Your task to perform on an android device: Go to eBay Image 0: 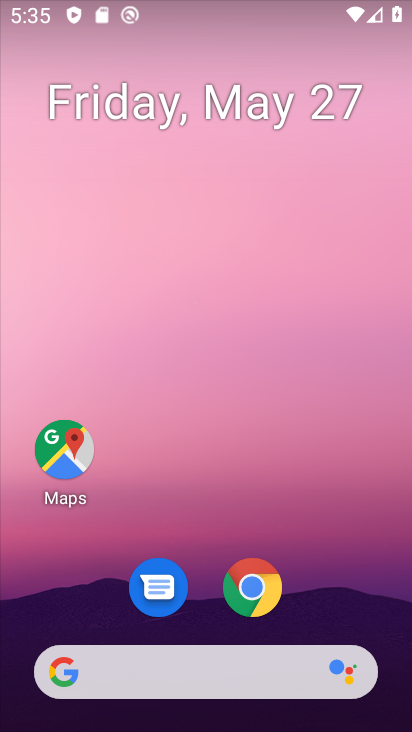
Step 0: click (269, 591)
Your task to perform on an android device: Go to eBay Image 1: 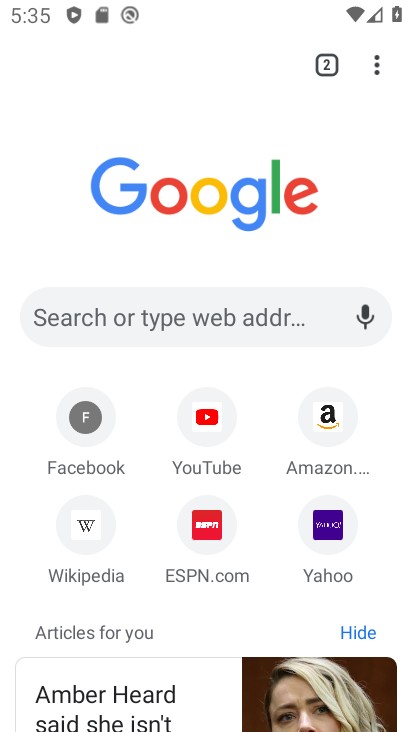
Step 1: click (211, 312)
Your task to perform on an android device: Go to eBay Image 2: 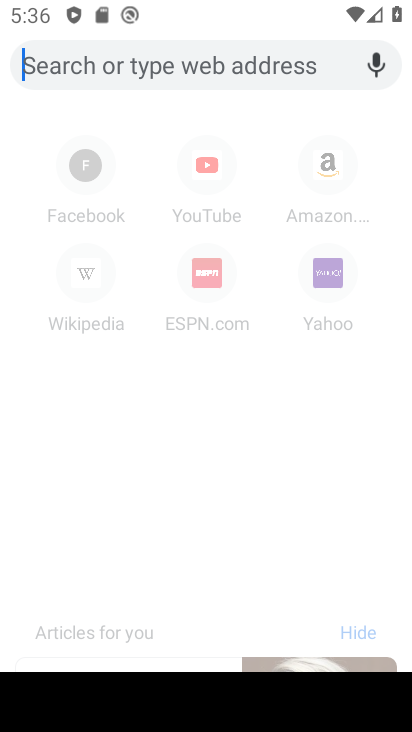
Step 2: type " eBay"
Your task to perform on an android device: Go to eBay Image 3: 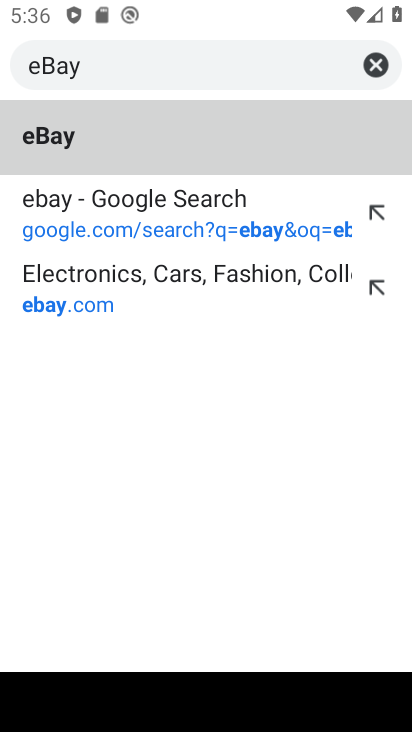
Step 3: click (46, 127)
Your task to perform on an android device: Go to eBay Image 4: 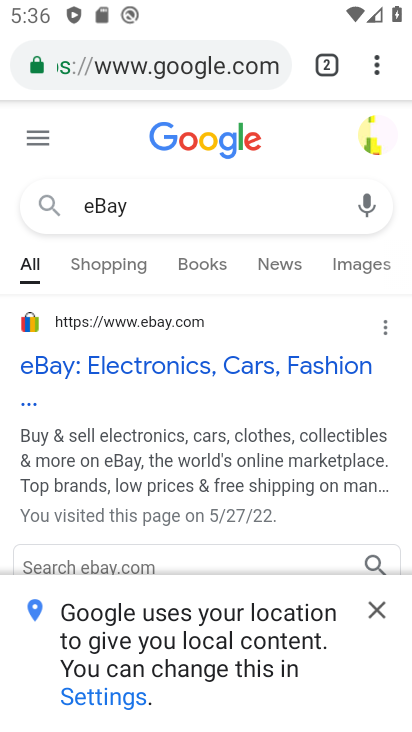
Step 4: click (194, 368)
Your task to perform on an android device: Go to eBay Image 5: 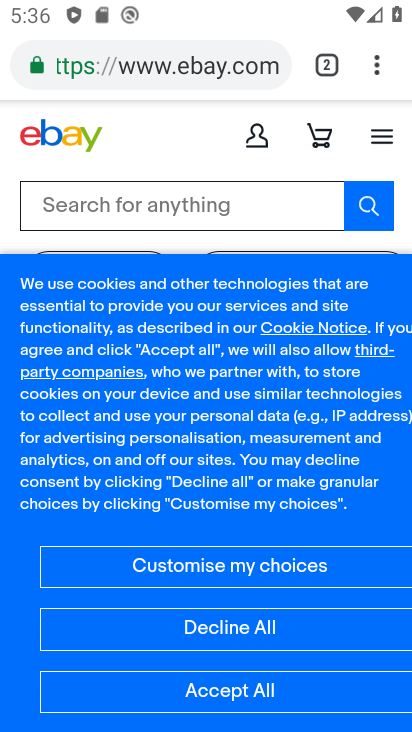
Step 5: task complete